Your task to perform on an android device: Open CNN.com Image 0: 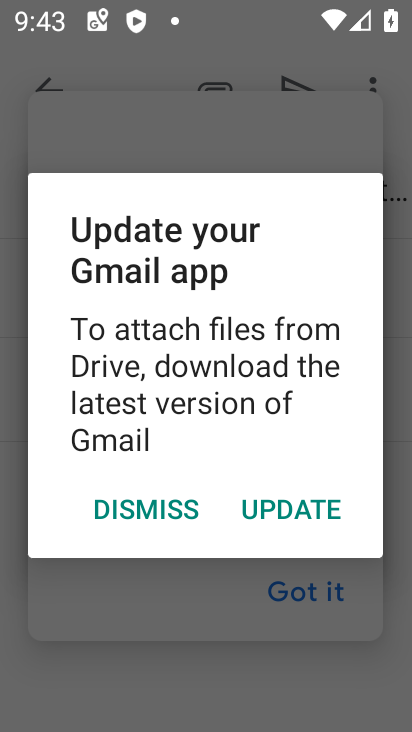
Step 0: press home button
Your task to perform on an android device: Open CNN.com Image 1: 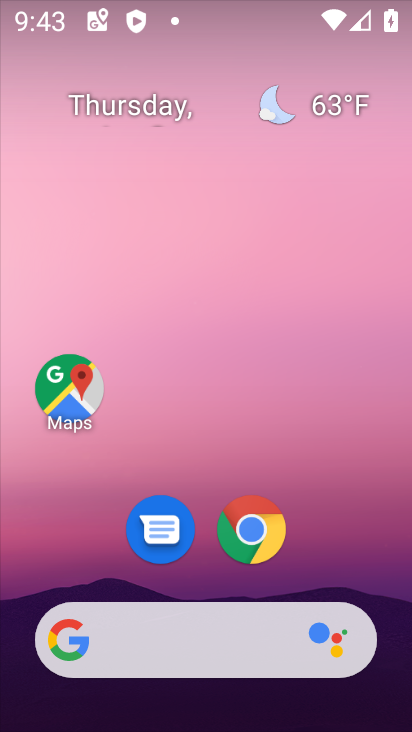
Step 1: click (270, 524)
Your task to perform on an android device: Open CNN.com Image 2: 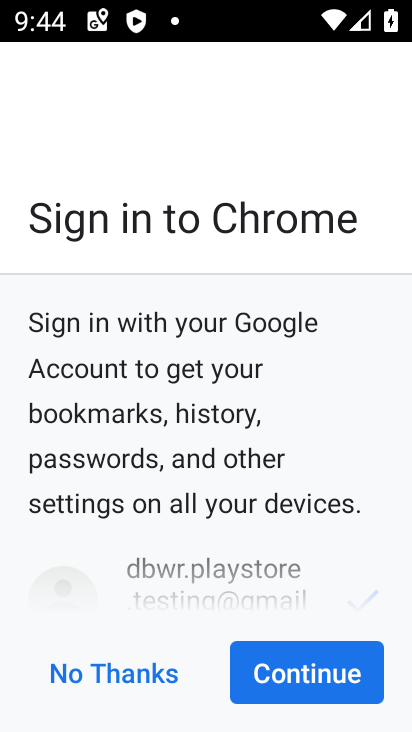
Step 2: click (262, 668)
Your task to perform on an android device: Open CNN.com Image 3: 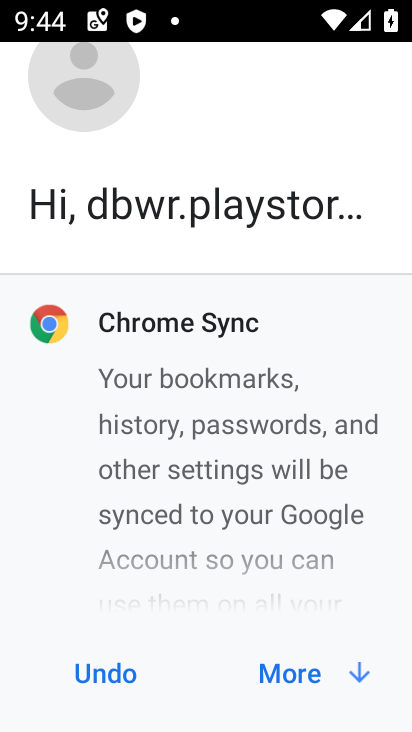
Step 3: click (262, 668)
Your task to perform on an android device: Open CNN.com Image 4: 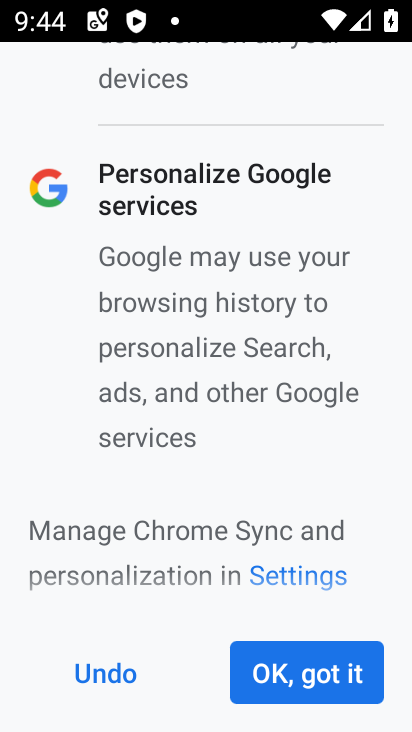
Step 4: click (262, 668)
Your task to perform on an android device: Open CNN.com Image 5: 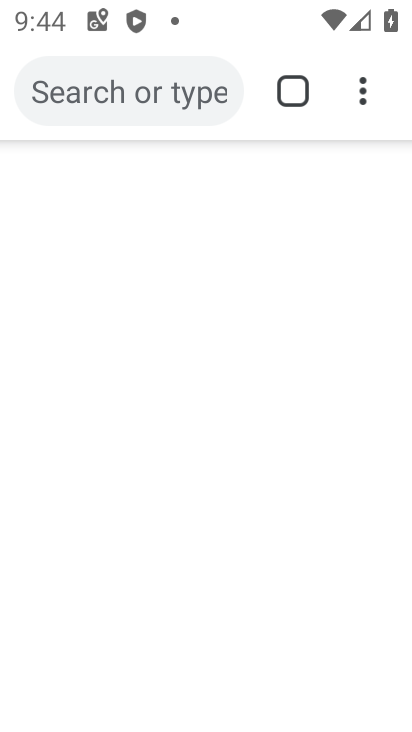
Step 5: click (262, 668)
Your task to perform on an android device: Open CNN.com Image 6: 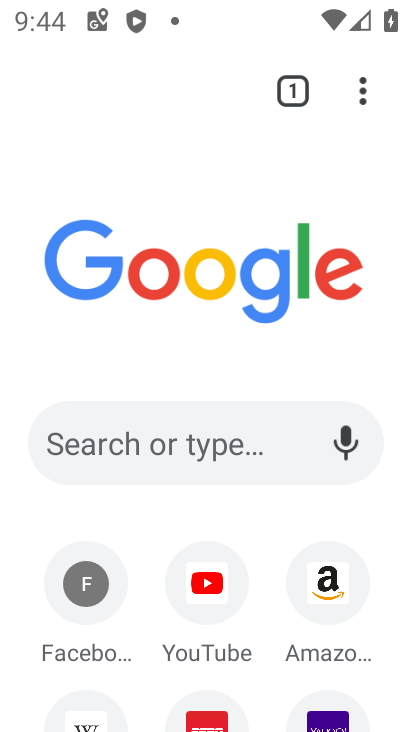
Step 6: click (208, 423)
Your task to perform on an android device: Open CNN.com Image 7: 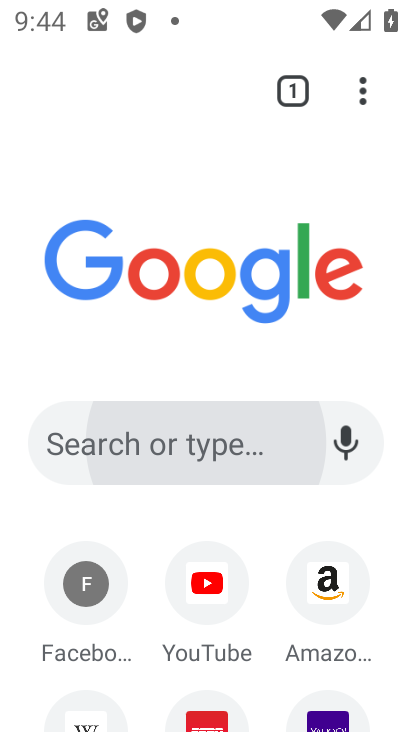
Step 7: click (208, 423)
Your task to perform on an android device: Open CNN.com Image 8: 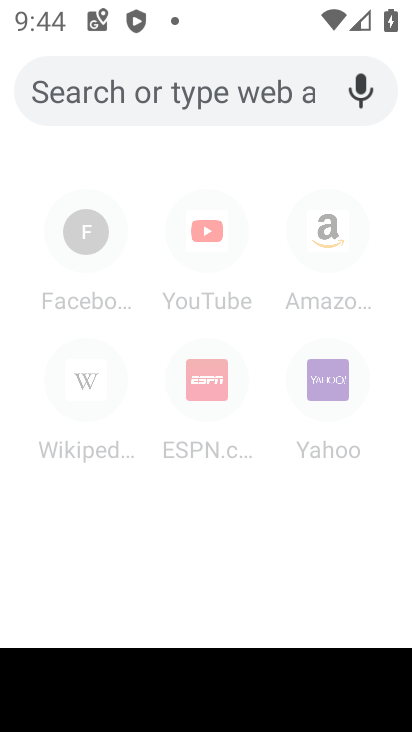
Step 8: type "cnn"
Your task to perform on an android device: Open CNN.com Image 9: 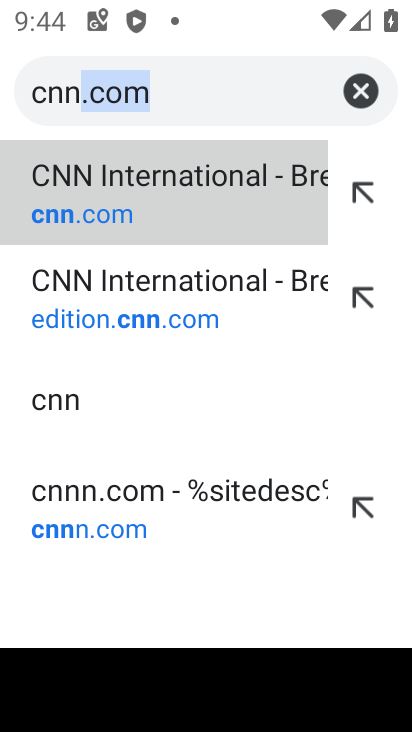
Step 9: click (65, 164)
Your task to perform on an android device: Open CNN.com Image 10: 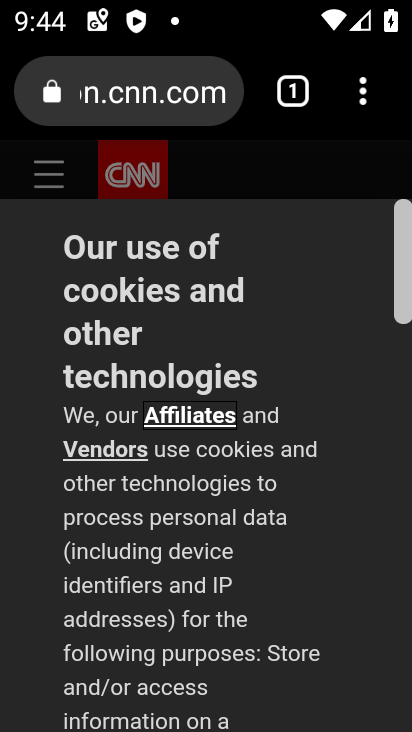
Step 10: task complete